Your task to perform on an android device: Open privacy settings Image 0: 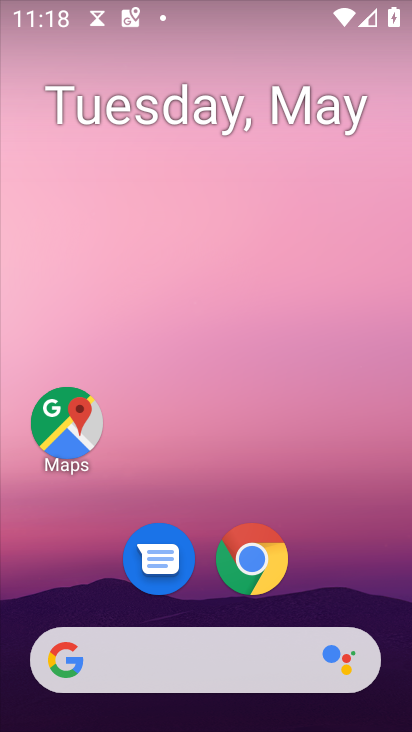
Step 0: drag from (349, 532) to (363, 21)
Your task to perform on an android device: Open privacy settings Image 1: 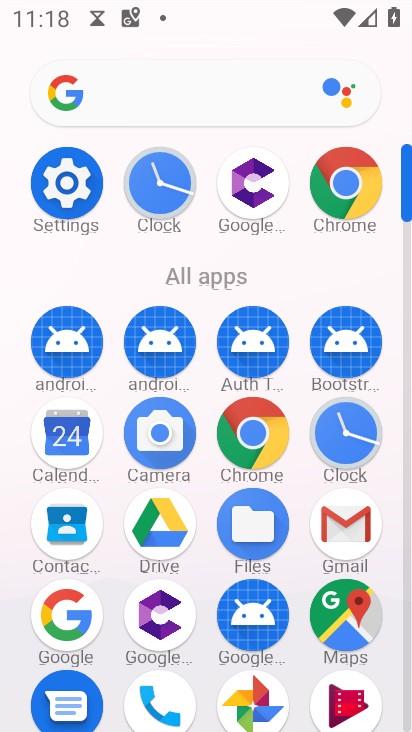
Step 1: click (67, 205)
Your task to perform on an android device: Open privacy settings Image 2: 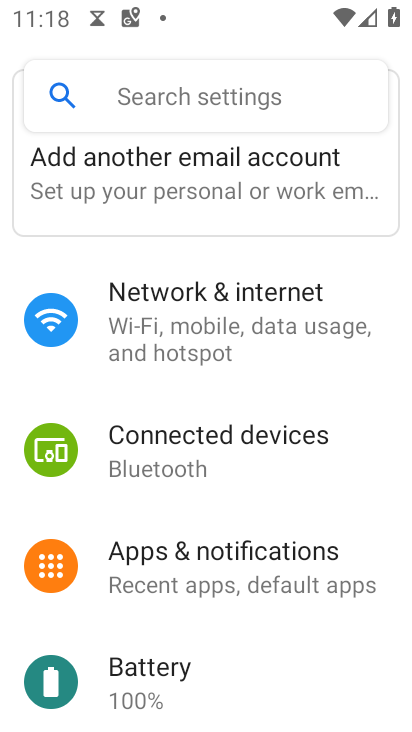
Step 2: drag from (269, 610) to (259, 58)
Your task to perform on an android device: Open privacy settings Image 3: 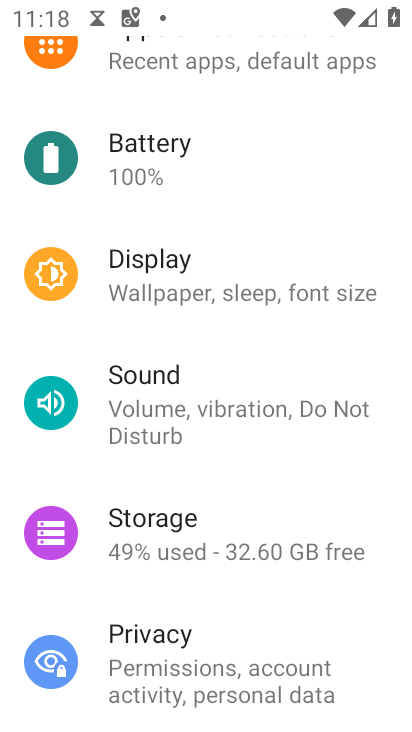
Step 3: click (174, 656)
Your task to perform on an android device: Open privacy settings Image 4: 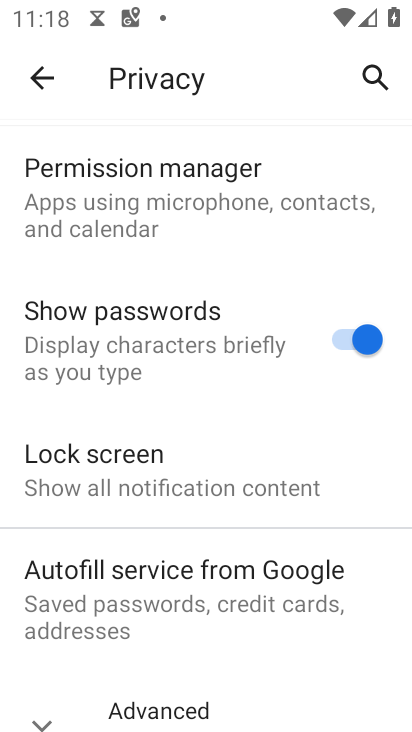
Step 4: task complete